Your task to perform on an android device: Go to Reddit.com Image 0: 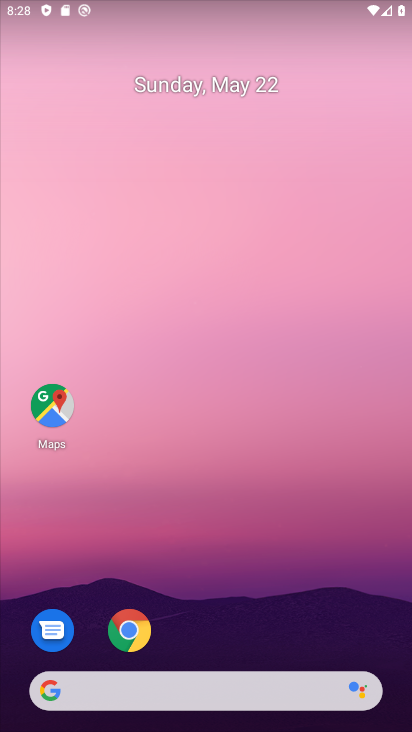
Step 0: drag from (271, 635) to (345, 2)
Your task to perform on an android device: Go to Reddit.com Image 1: 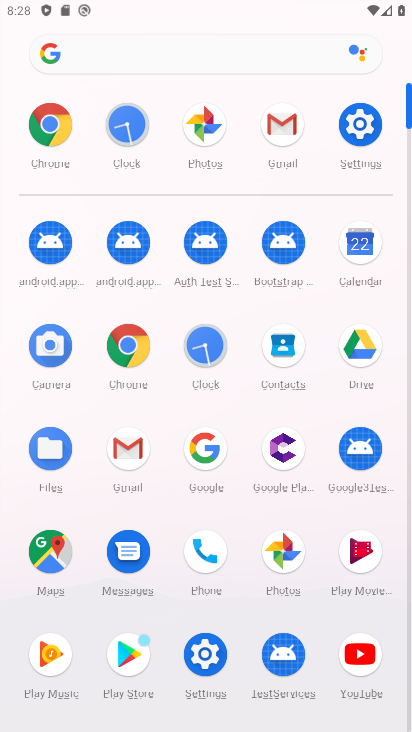
Step 1: click (379, 144)
Your task to perform on an android device: Go to Reddit.com Image 2: 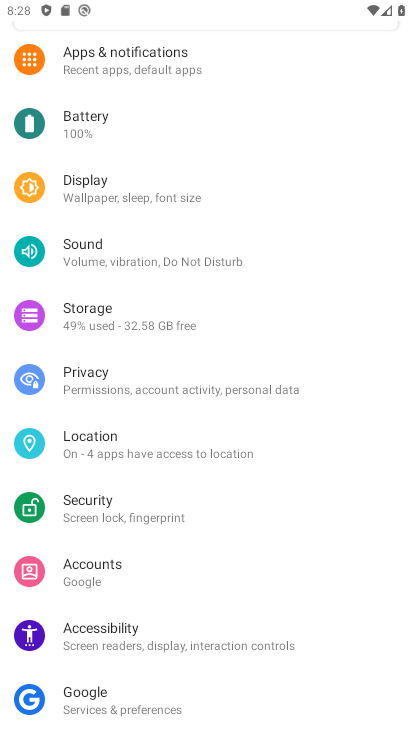
Step 2: press home button
Your task to perform on an android device: Go to Reddit.com Image 3: 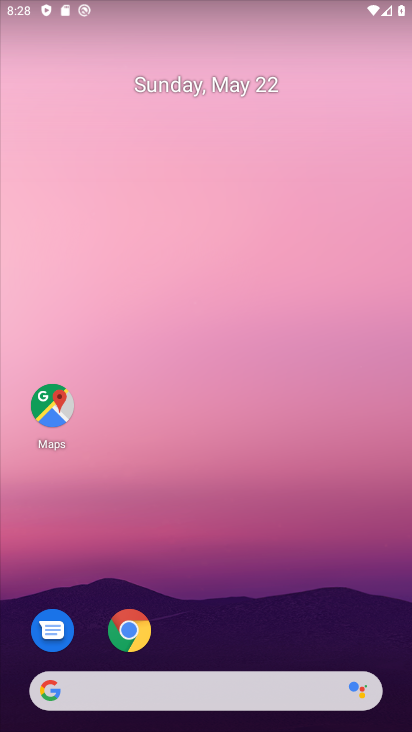
Step 3: click (138, 626)
Your task to perform on an android device: Go to Reddit.com Image 4: 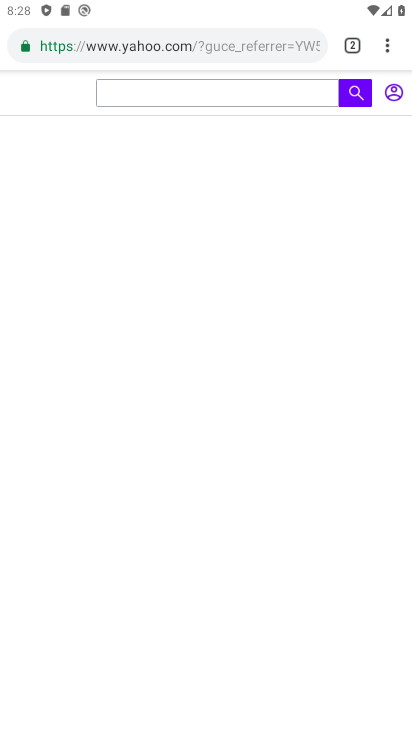
Step 4: click (234, 42)
Your task to perform on an android device: Go to Reddit.com Image 5: 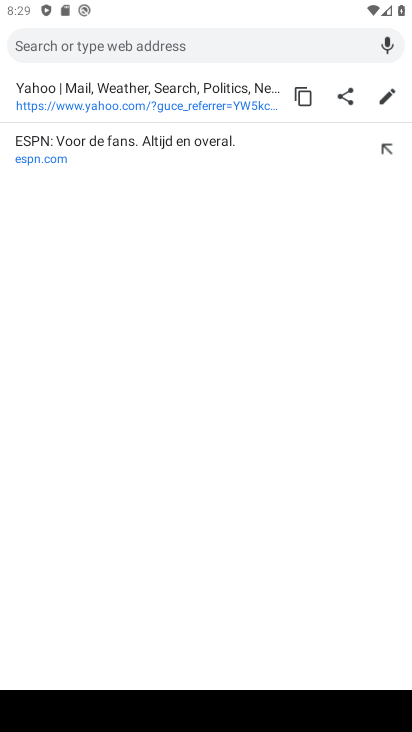
Step 5: type "reddit.com"
Your task to perform on an android device: Go to Reddit.com Image 6: 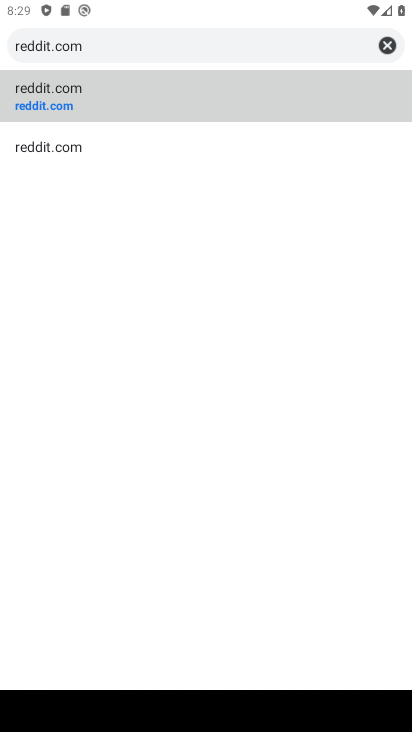
Step 6: click (145, 90)
Your task to perform on an android device: Go to Reddit.com Image 7: 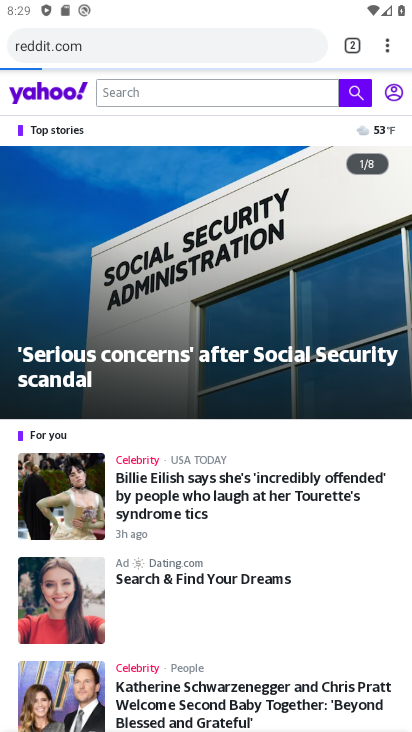
Step 7: task complete